Your task to perform on an android device: all mails in gmail Image 0: 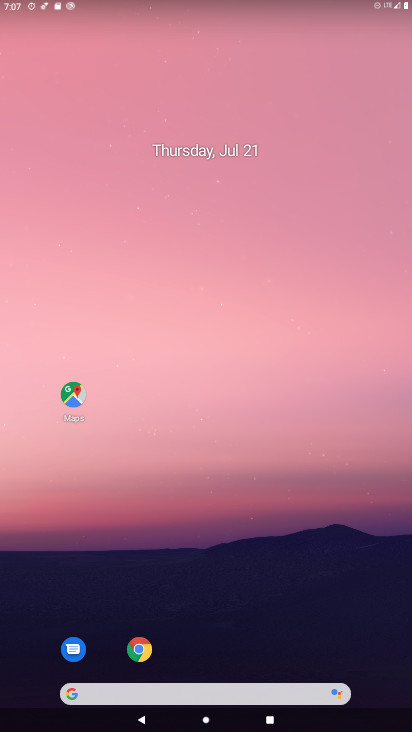
Step 0: drag from (373, 618) to (121, 22)
Your task to perform on an android device: all mails in gmail Image 1: 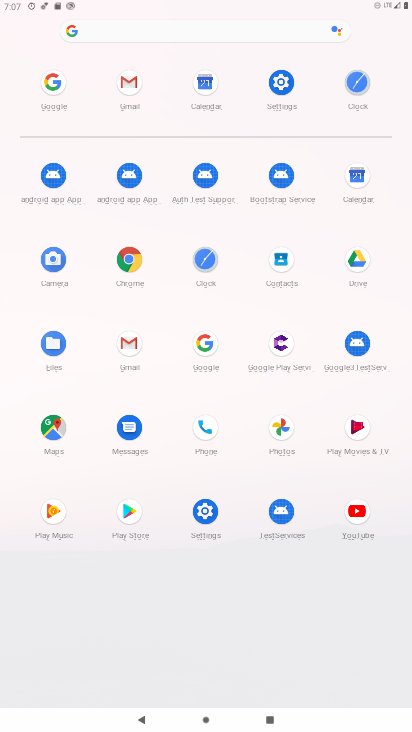
Step 1: click (136, 341)
Your task to perform on an android device: all mails in gmail Image 2: 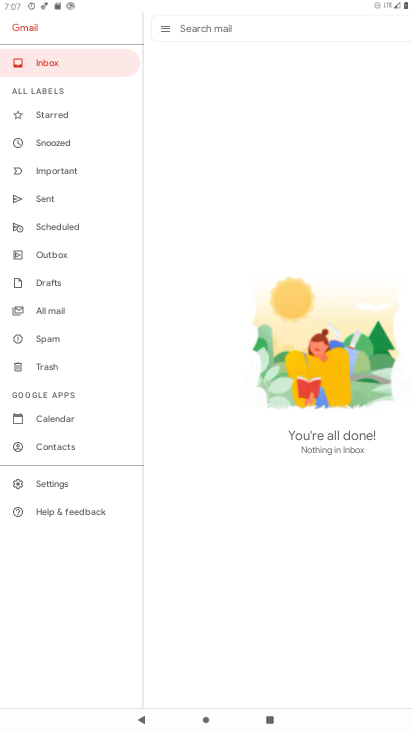
Step 2: click (49, 314)
Your task to perform on an android device: all mails in gmail Image 3: 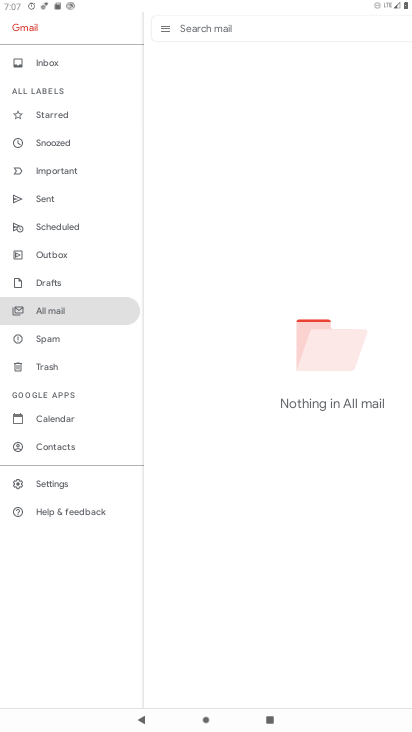
Step 3: task complete